Your task to perform on an android device: turn pop-ups on in chrome Image 0: 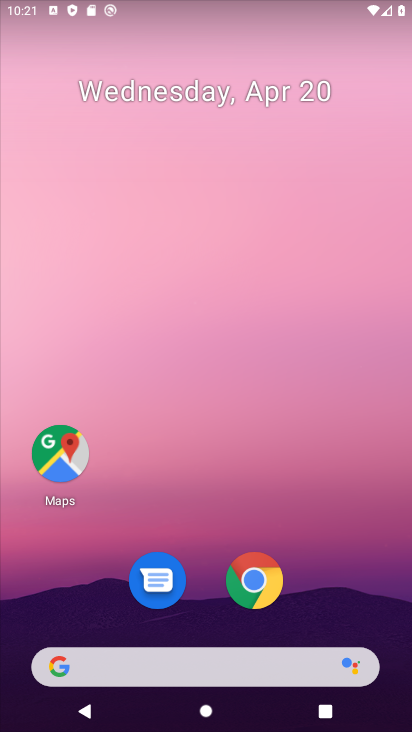
Step 0: click (377, 682)
Your task to perform on an android device: turn pop-ups on in chrome Image 1: 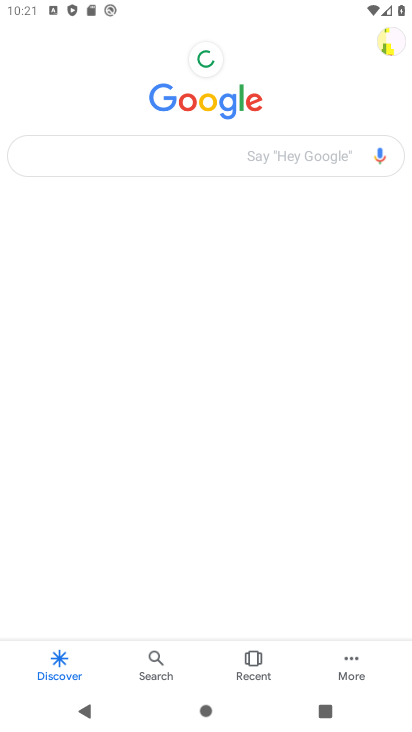
Step 1: press home button
Your task to perform on an android device: turn pop-ups on in chrome Image 2: 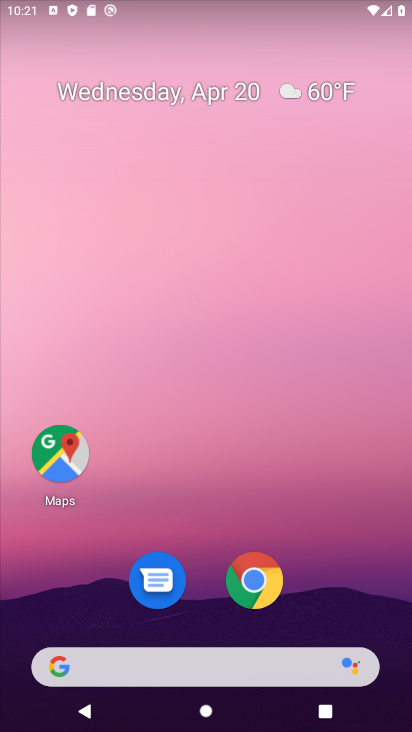
Step 2: click (258, 587)
Your task to perform on an android device: turn pop-ups on in chrome Image 3: 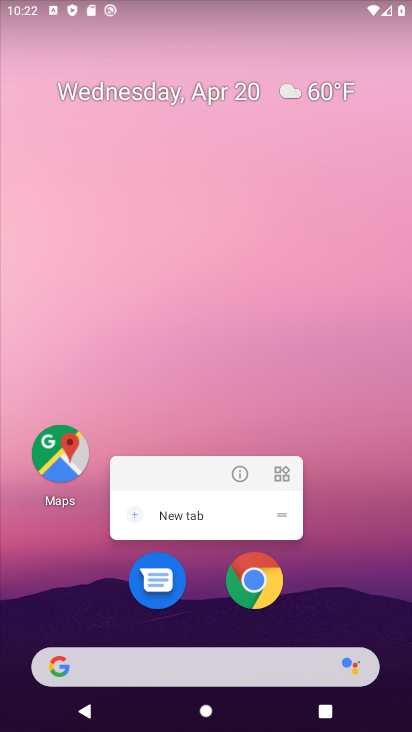
Step 3: click (252, 602)
Your task to perform on an android device: turn pop-ups on in chrome Image 4: 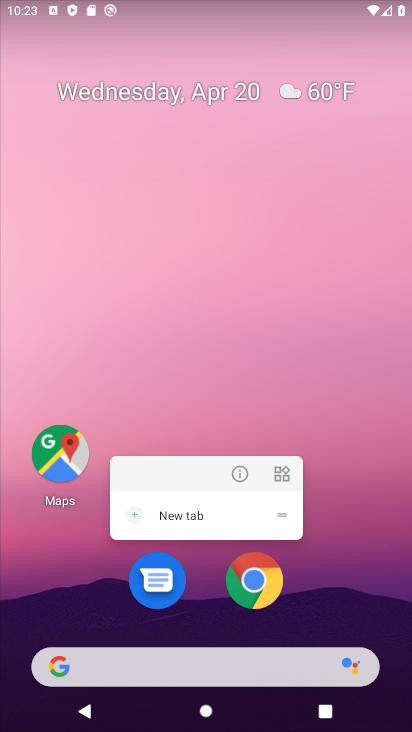
Step 4: click (238, 567)
Your task to perform on an android device: turn pop-ups on in chrome Image 5: 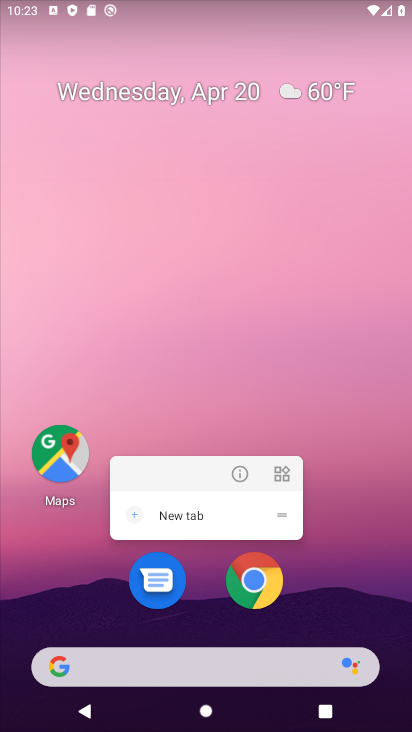
Step 5: click (262, 572)
Your task to perform on an android device: turn pop-ups on in chrome Image 6: 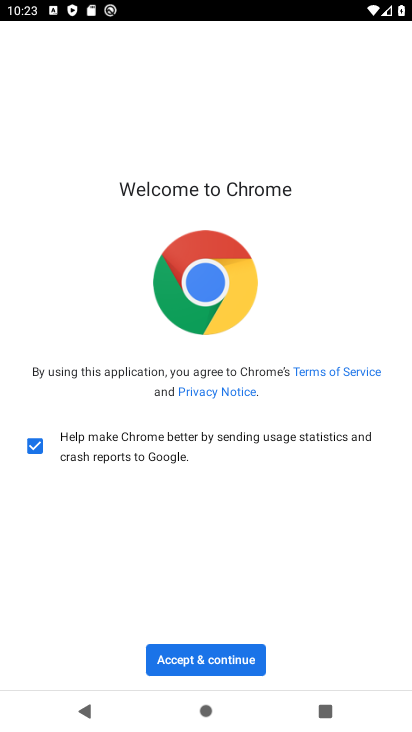
Step 6: click (176, 661)
Your task to perform on an android device: turn pop-ups on in chrome Image 7: 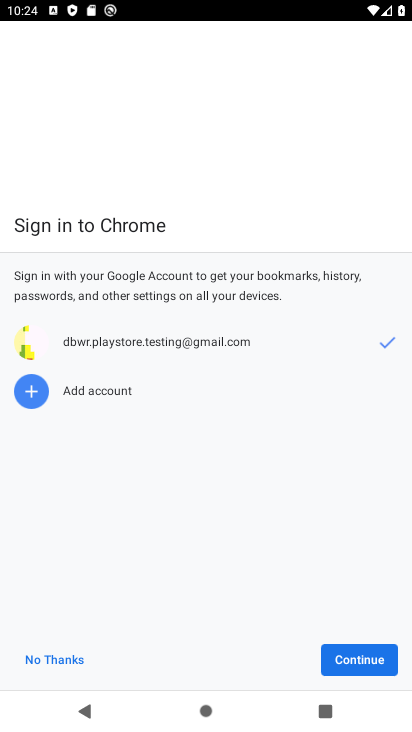
Step 7: click (324, 667)
Your task to perform on an android device: turn pop-ups on in chrome Image 8: 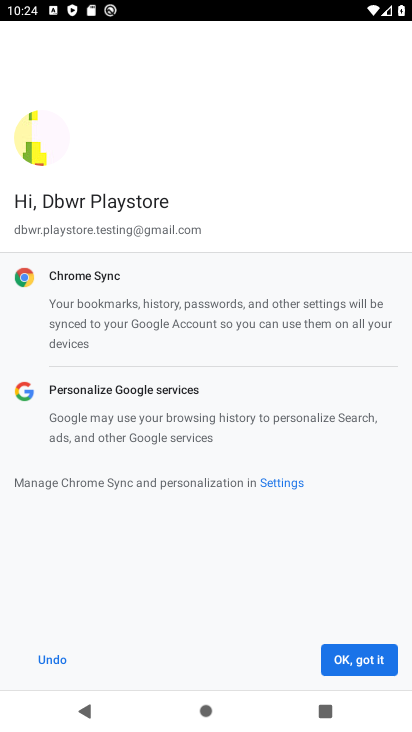
Step 8: click (349, 656)
Your task to perform on an android device: turn pop-ups on in chrome Image 9: 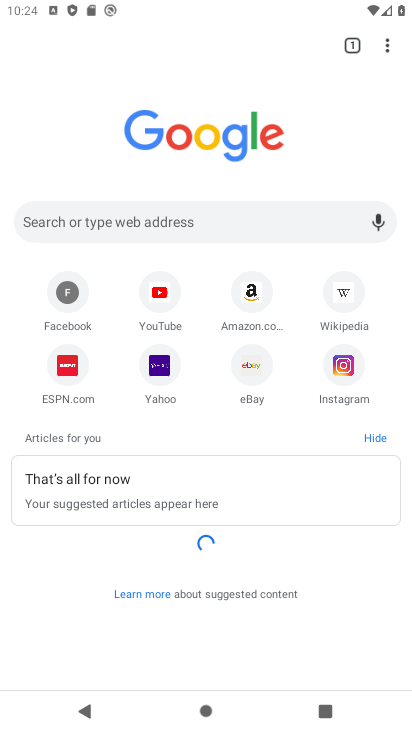
Step 9: click (382, 38)
Your task to perform on an android device: turn pop-ups on in chrome Image 10: 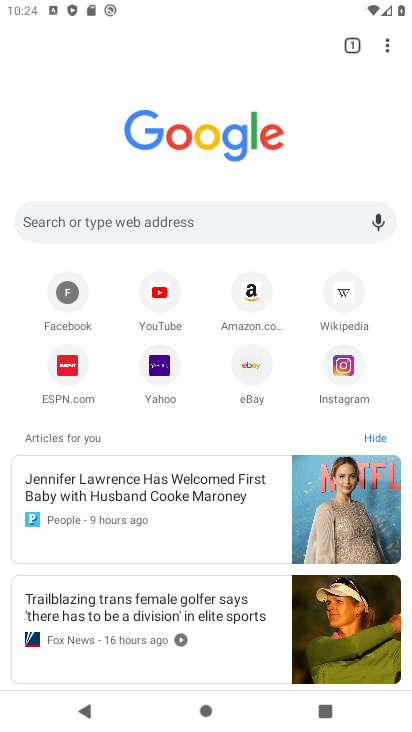
Step 10: drag from (378, 46) to (261, 389)
Your task to perform on an android device: turn pop-ups on in chrome Image 11: 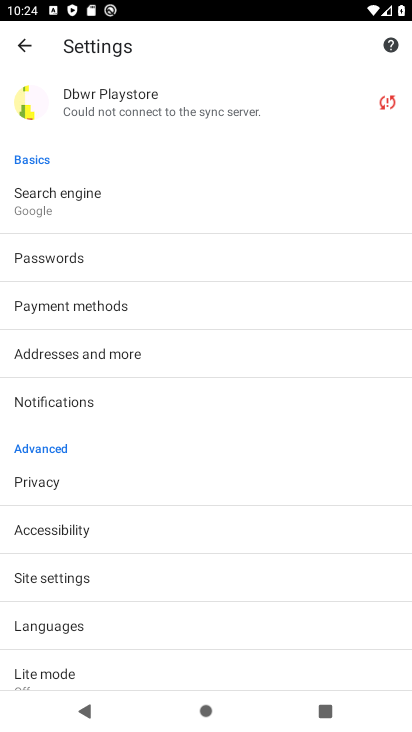
Step 11: click (53, 573)
Your task to perform on an android device: turn pop-ups on in chrome Image 12: 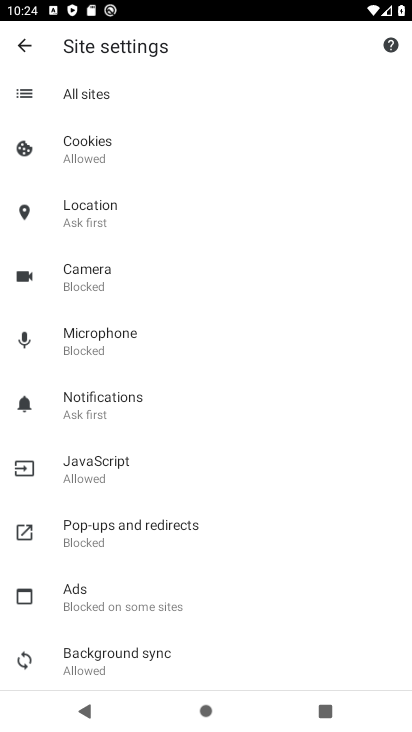
Step 12: drag from (161, 550) to (125, 163)
Your task to perform on an android device: turn pop-ups on in chrome Image 13: 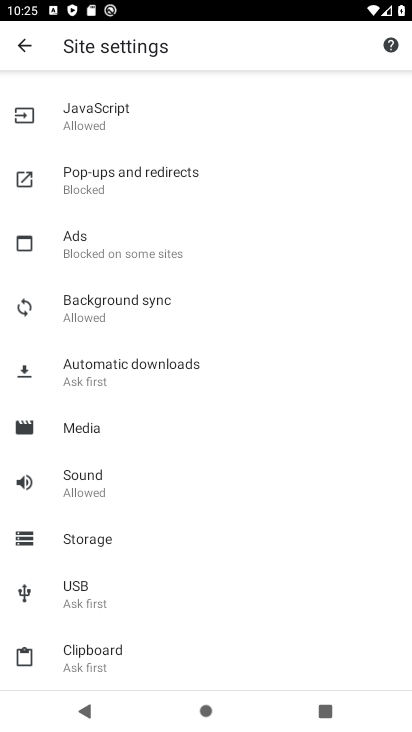
Step 13: click (111, 186)
Your task to perform on an android device: turn pop-ups on in chrome Image 14: 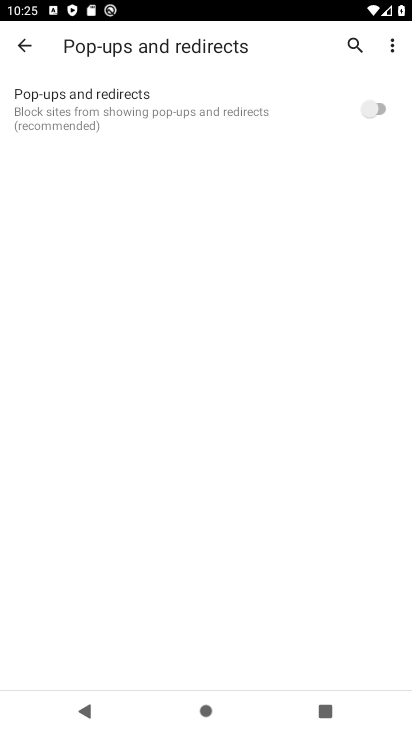
Step 14: click (375, 113)
Your task to perform on an android device: turn pop-ups on in chrome Image 15: 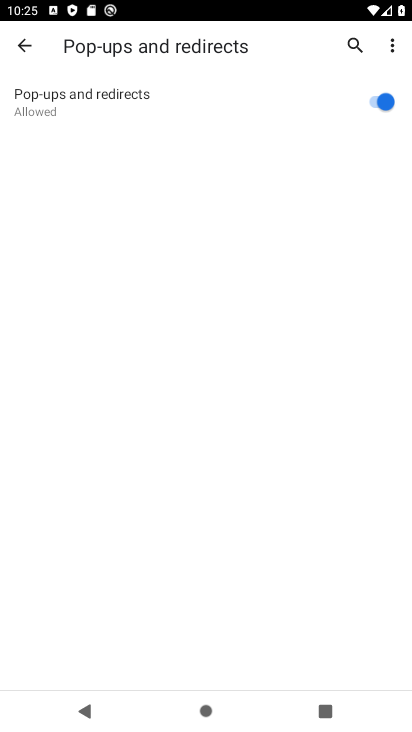
Step 15: task complete